Your task to perform on an android device: turn smart compose on in the gmail app Image 0: 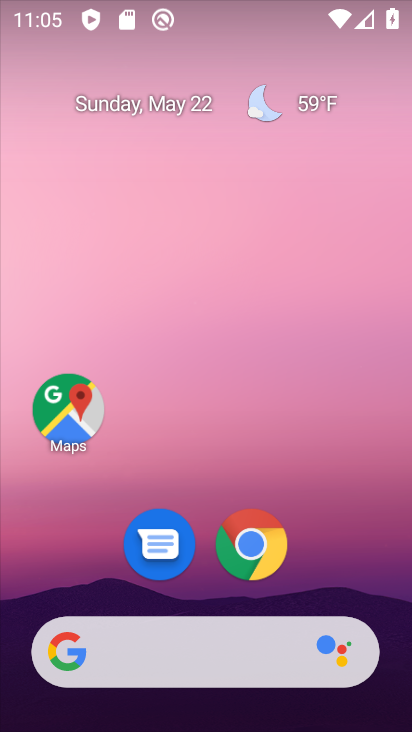
Step 0: drag from (355, 556) to (208, 7)
Your task to perform on an android device: turn smart compose on in the gmail app Image 1: 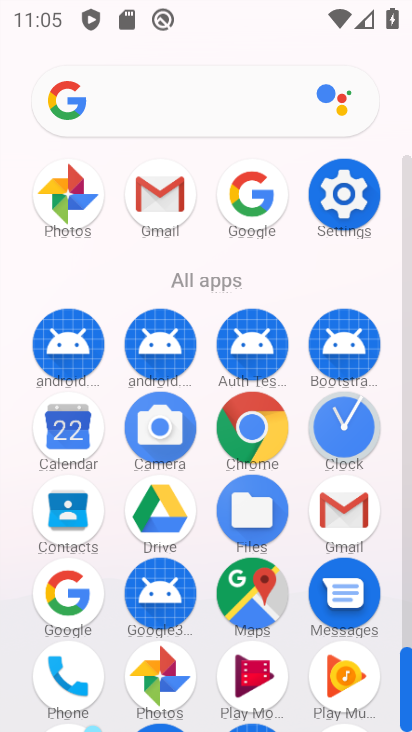
Step 1: click (149, 213)
Your task to perform on an android device: turn smart compose on in the gmail app Image 2: 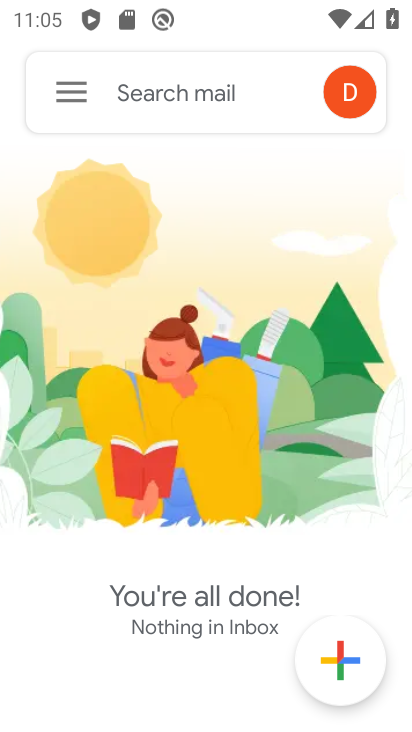
Step 2: click (45, 80)
Your task to perform on an android device: turn smart compose on in the gmail app Image 3: 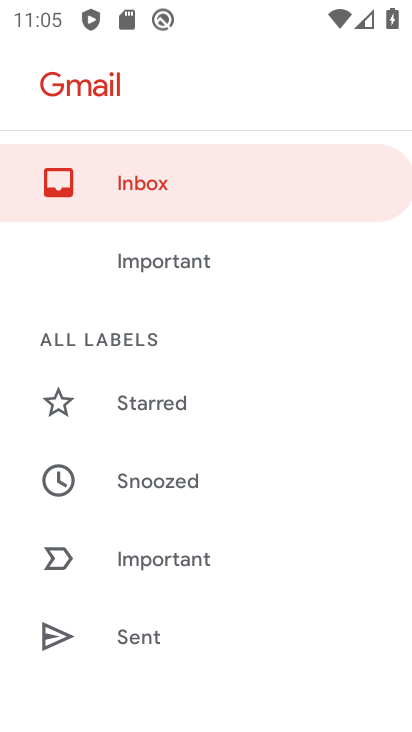
Step 3: drag from (198, 640) to (148, 212)
Your task to perform on an android device: turn smart compose on in the gmail app Image 4: 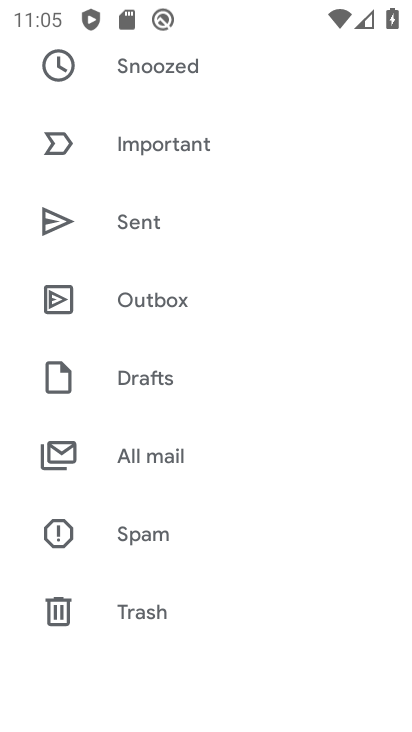
Step 4: drag from (188, 616) to (183, 160)
Your task to perform on an android device: turn smart compose on in the gmail app Image 5: 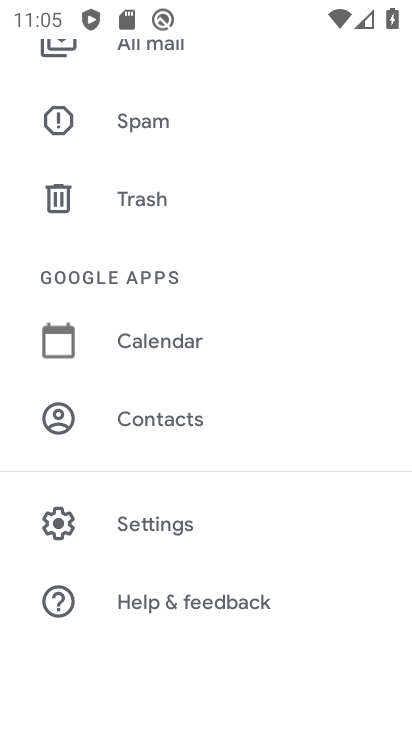
Step 5: click (167, 526)
Your task to perform on an android device: turn smart compose on in the gmail app Image 6: 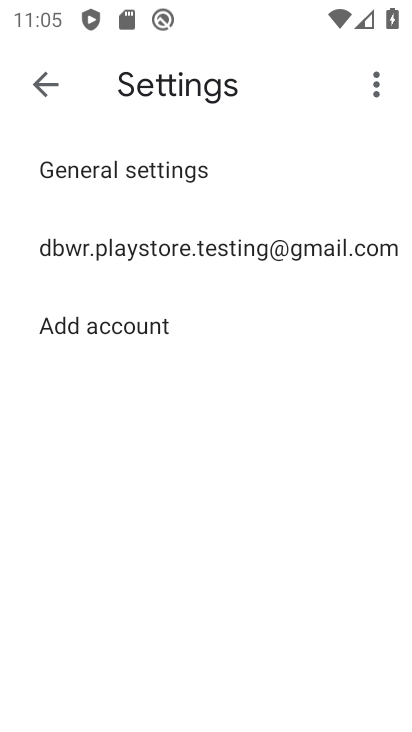
Step 6: click (78, 226)
Your task to perform on an android device: turn smart compose on in the gmail app Image 7: 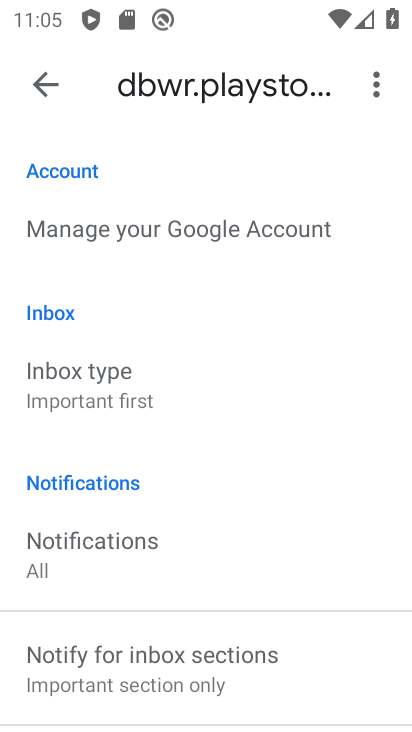
Step 7: task complete